Your task to perform on an android device: Open calendar and show me the fourth week of next month Image 0: 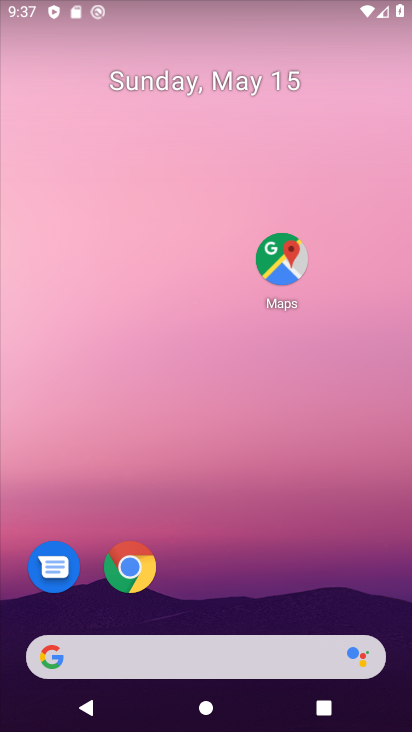
Step 0: drag from (244, 546) to (307, 26)
Your task to perform on an android device: Open calendar and show me the fourth week of next month Image 1: 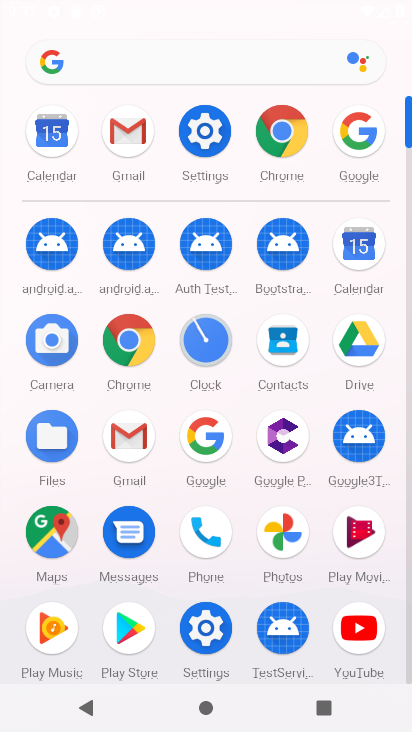
Step 1: click (338, 250)
Your task to perform on an android device: Open calendar and show me the fourth week of next month Image 2: 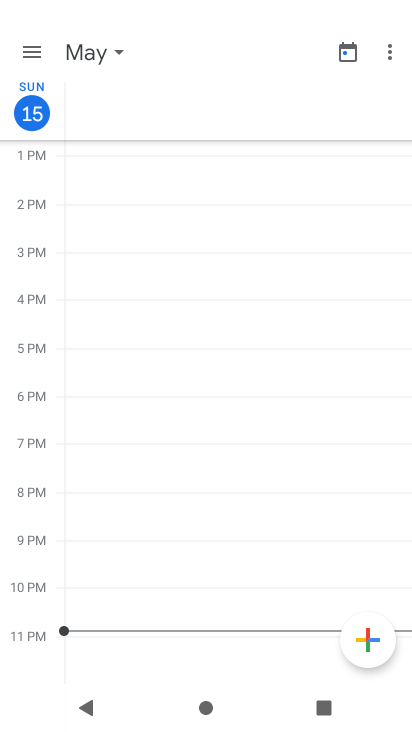
Step 2: click (119, 52)
Your task to perform on an android device: Open calendar and show me the fourth week of next month Image 3: 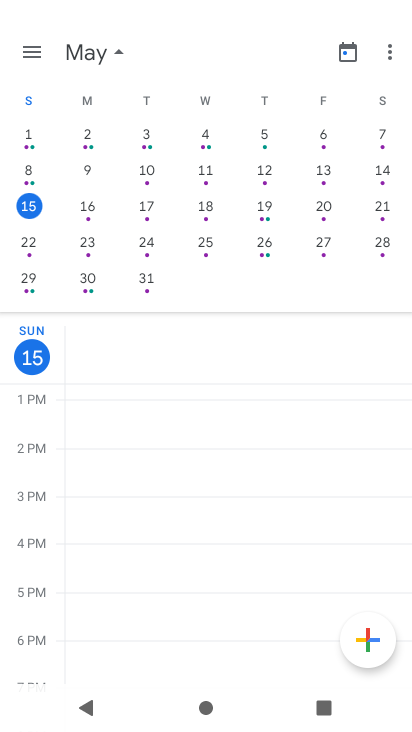
Step 3: drag from (355, 288) to (4, 273)
Your task to perform on an android device: Open calendar and show me the fourth week of next month Image 4: 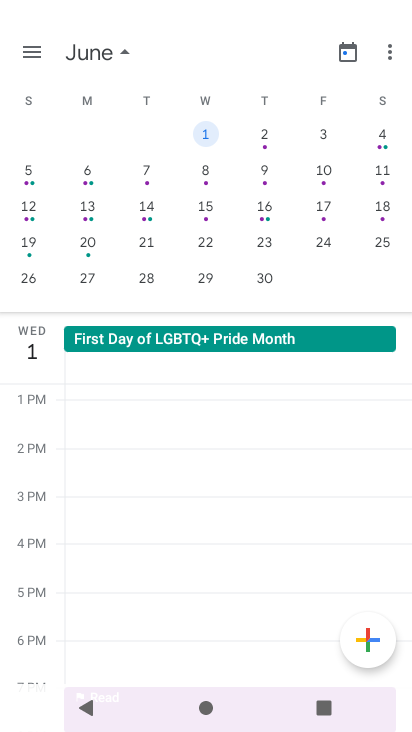
Step 4: click (202, 241)
Your task to perform on an android device: Open calendar and show me the fourth week of next month Image 5: 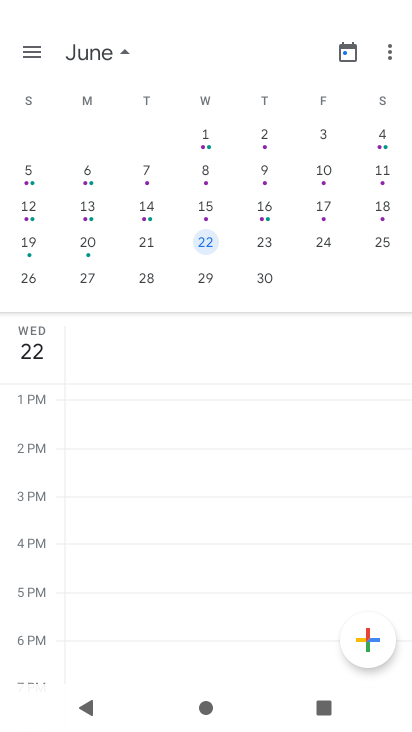
Step 5: task complete